Your task to perform on an android device: open sync settings in chrome Image 0: 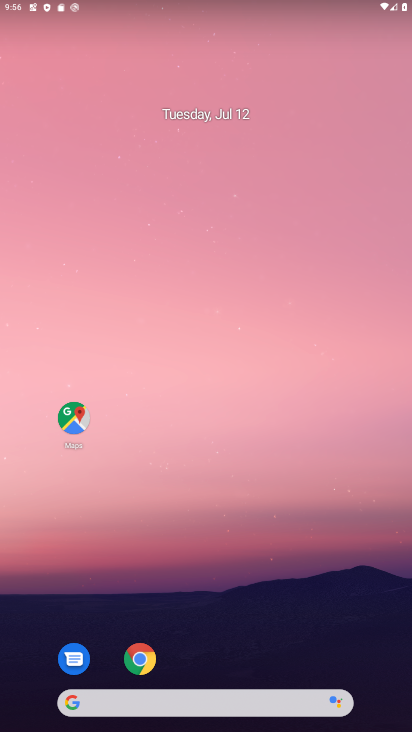
Step 0: click (143, 665)
Your task to perform on an android device: open sync settings in chrome Image 1: 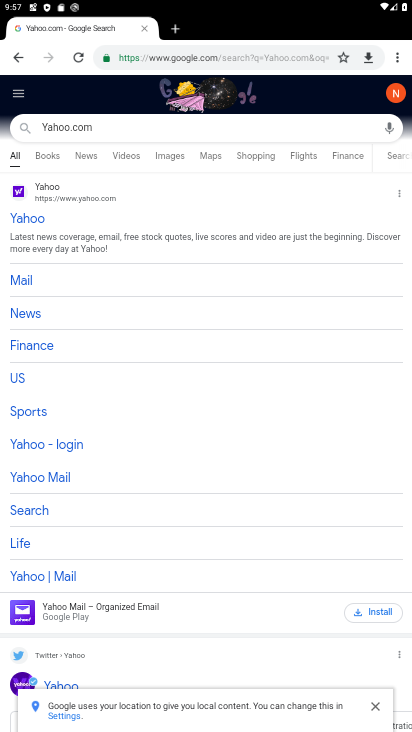
Step 1: click (395, 55)
Your task to perform on an android device: open sync settings in chrome Image 2: 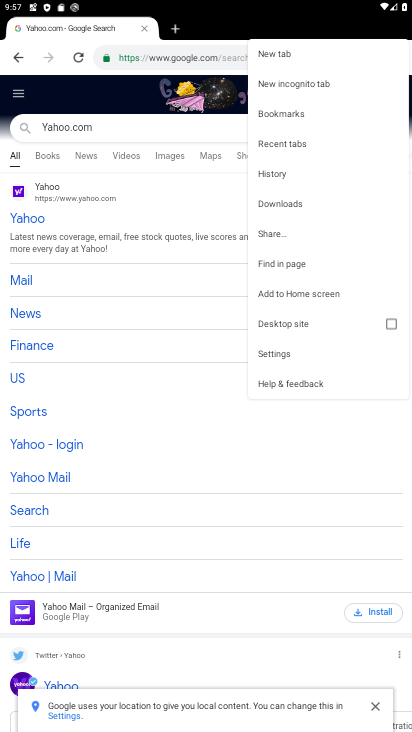
Step 2: click (273, 353)
Your task to perform on an android device: open sync settings in chrome Image 3: 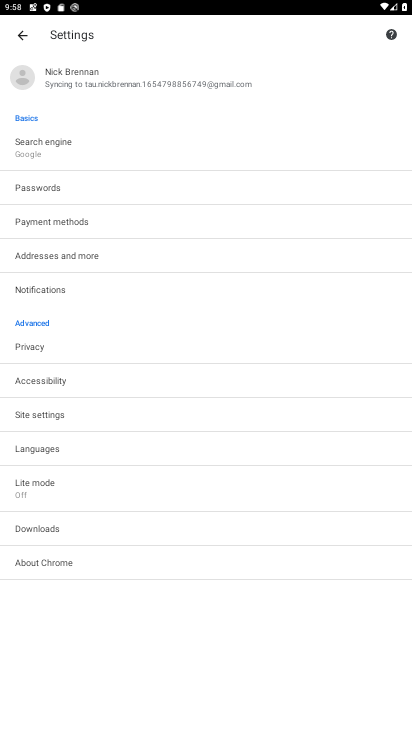
Step 3: task complete